Your task to perform on an android device: change the clock style Image 0: 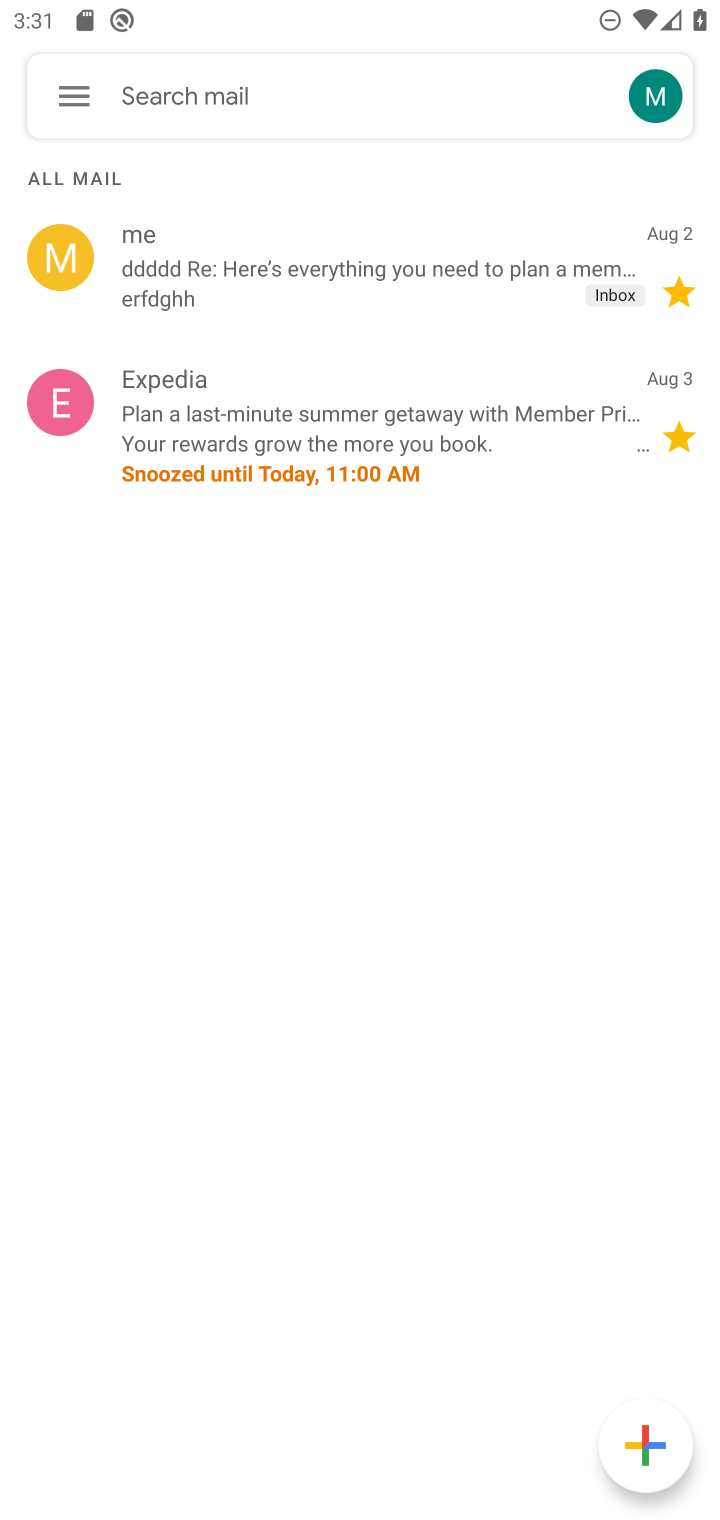
Step 0: press home button
Your task to perform on an android device: change the clock style Image 1: 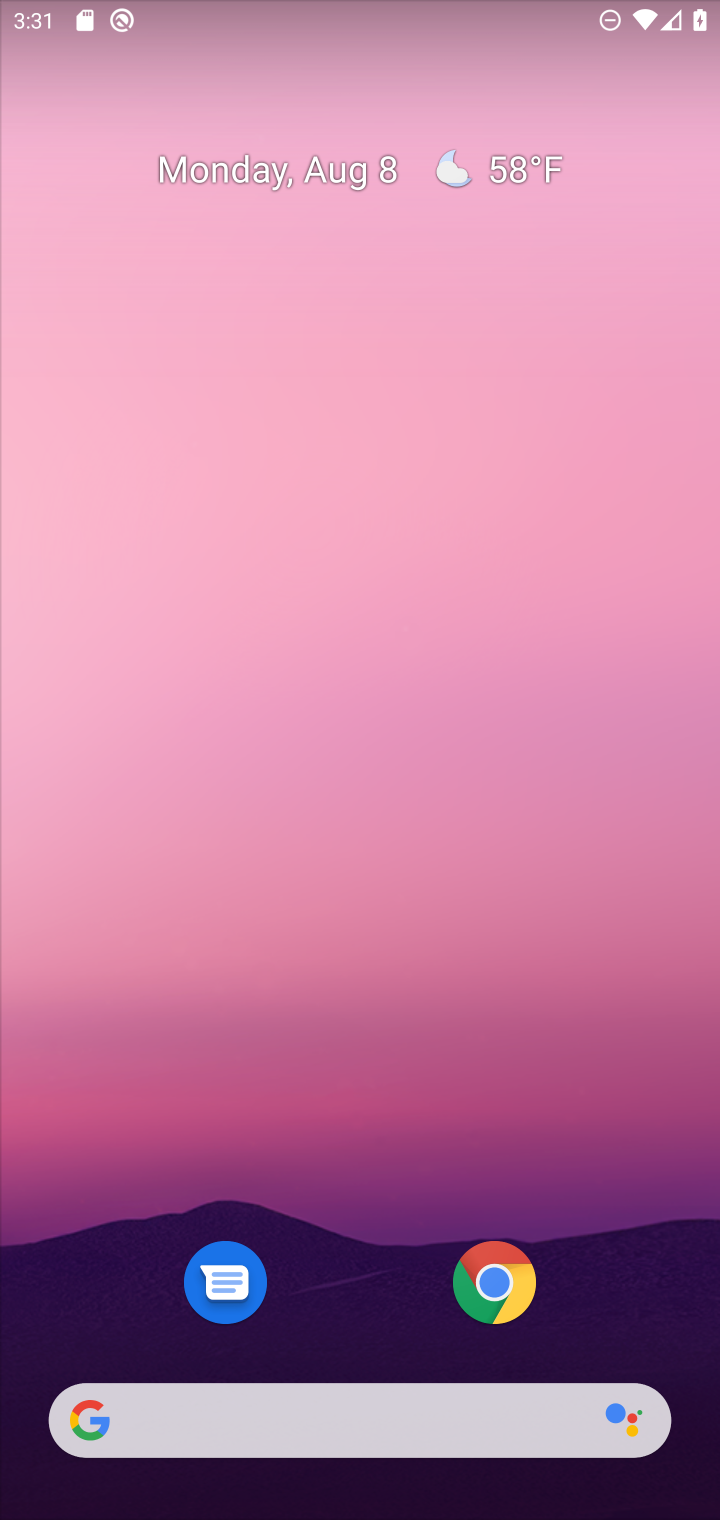
Step 1: drag from (386, 768) to (474, 257)
Your task to perform on an android device: change the clock style Image 2: 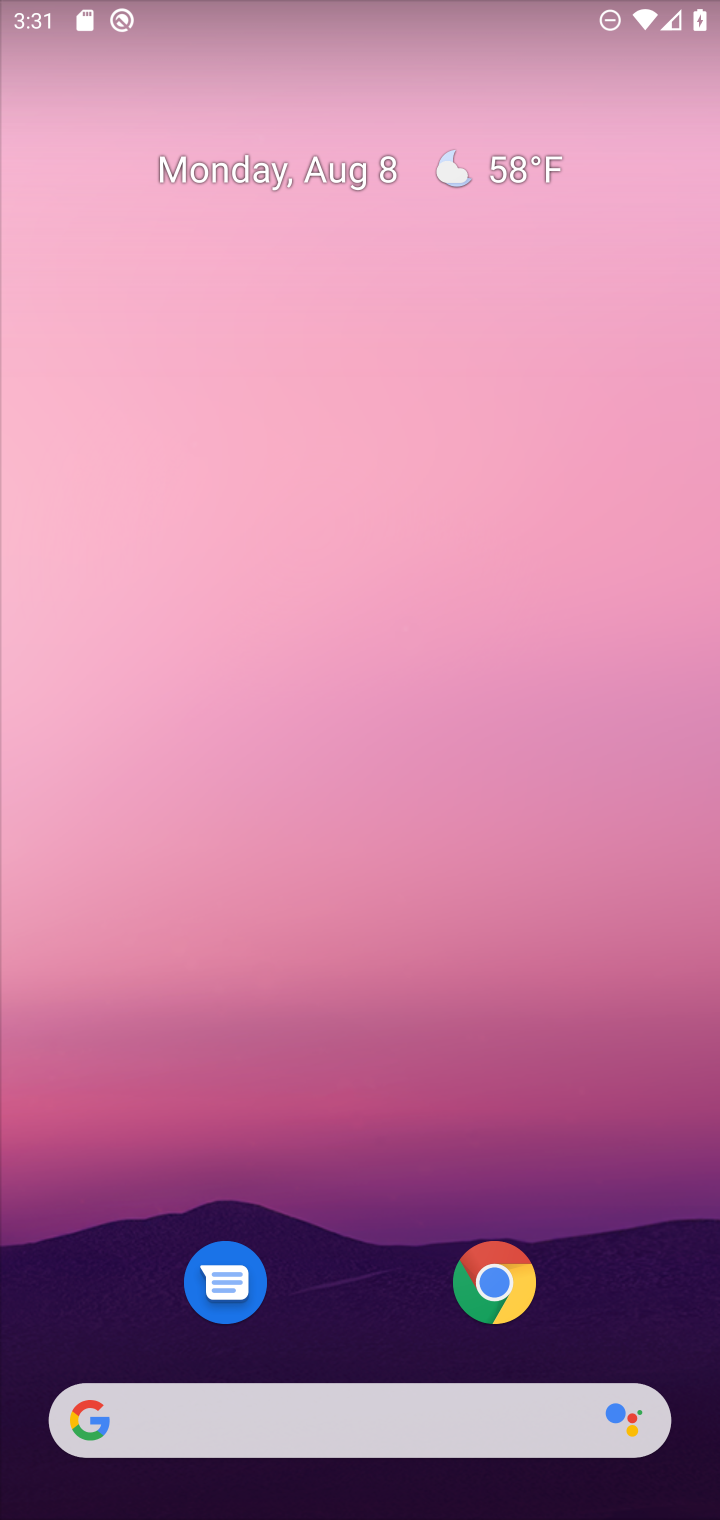
Step 2: drag from (313, 1250) to (419, 237)
Your task to perform on an android device: change the clock style Image 3: 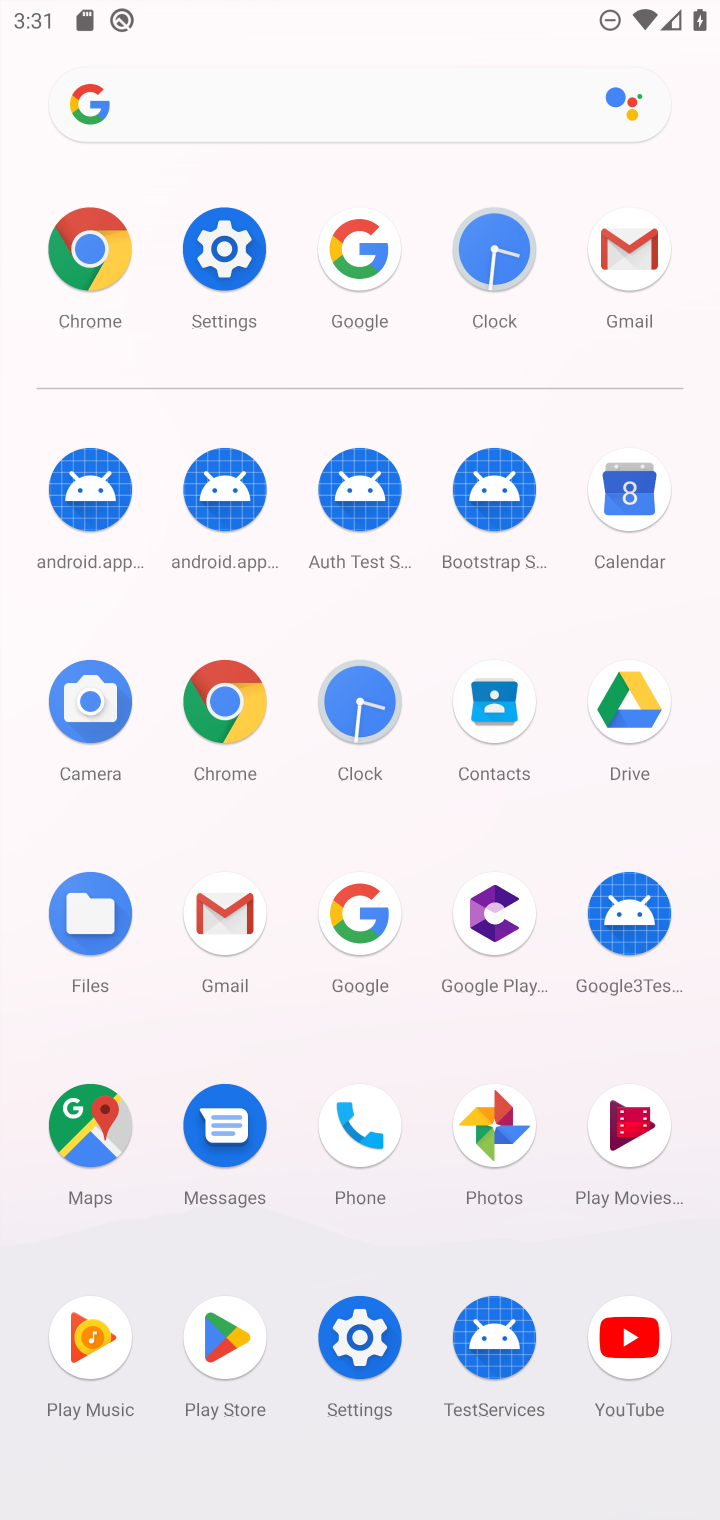
Step 3: click (355, 695)
Your task to perform on an android device: change the clock style Image 4: 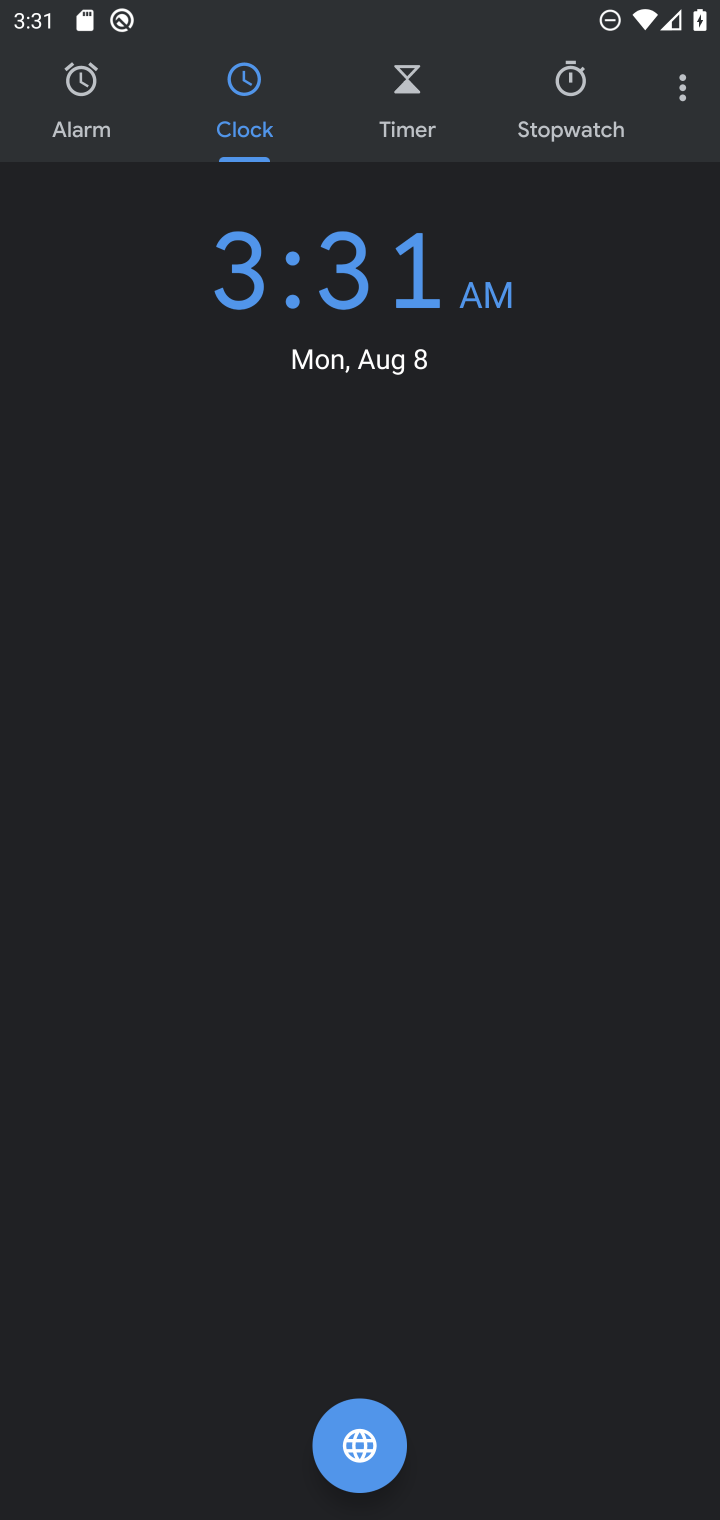
Step 4: click (673, 89)
Your task to perform on an android device: change the clock style Image 5: 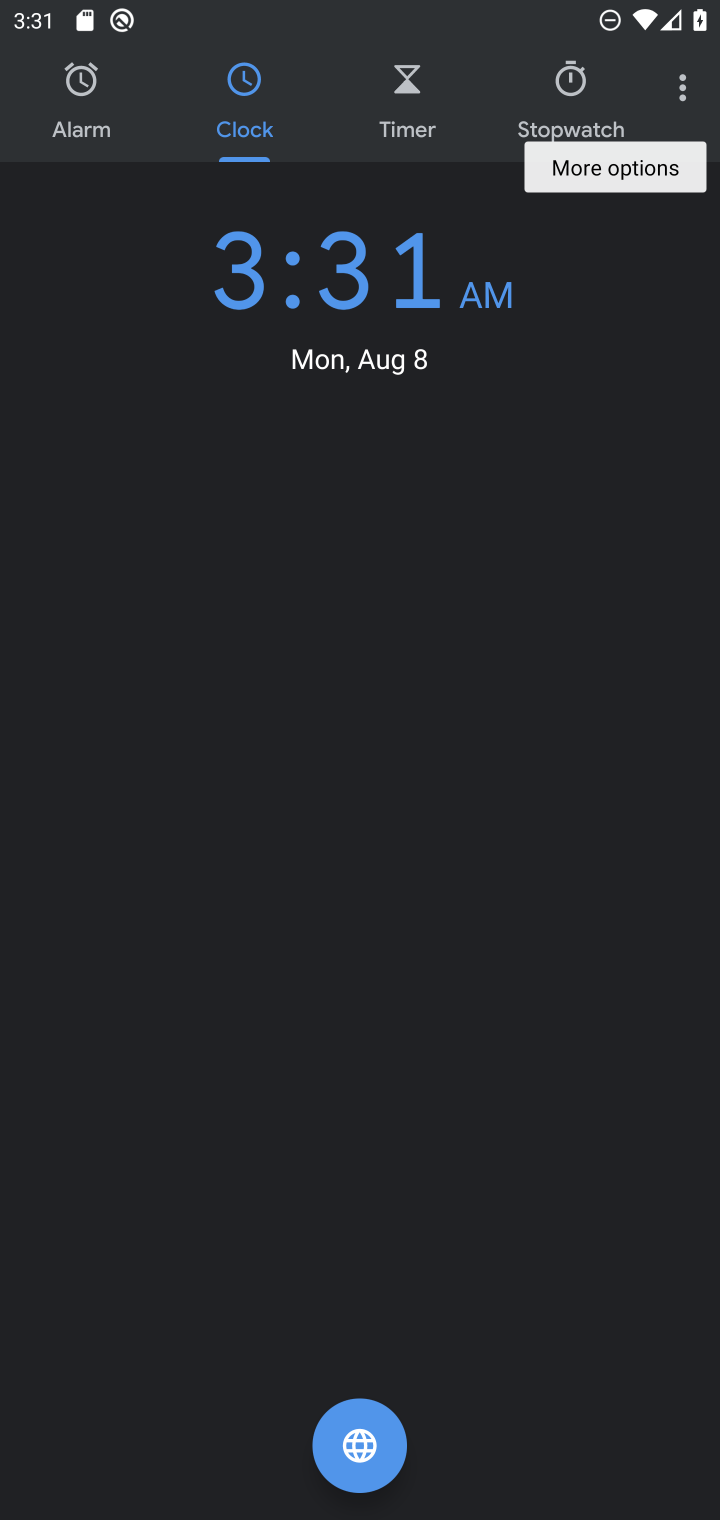
Step 5: click (677, 86)
Your task to perform on an android device: change the clock style Image 6: 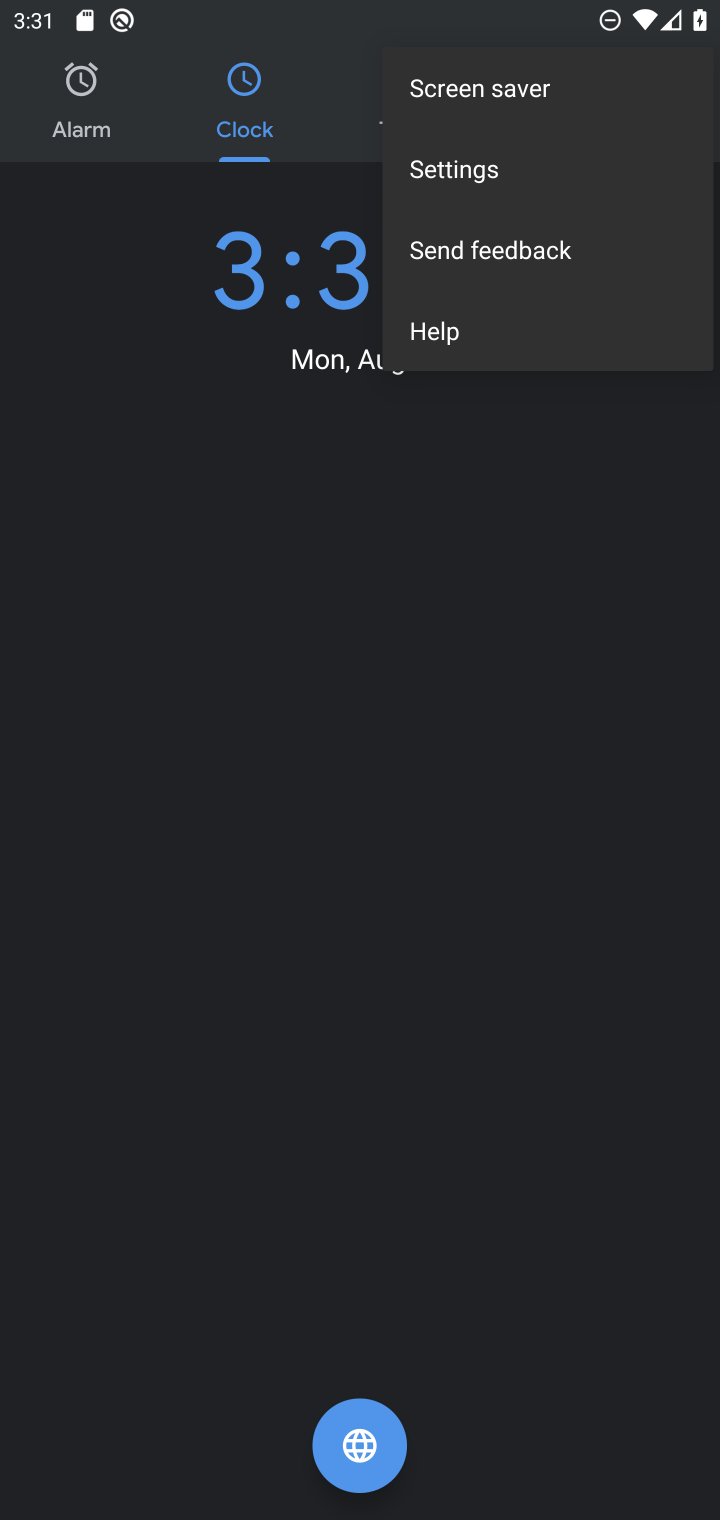
Step 6: click (480, 168)
Your task to perform on an android device: change the clock style Image 7: 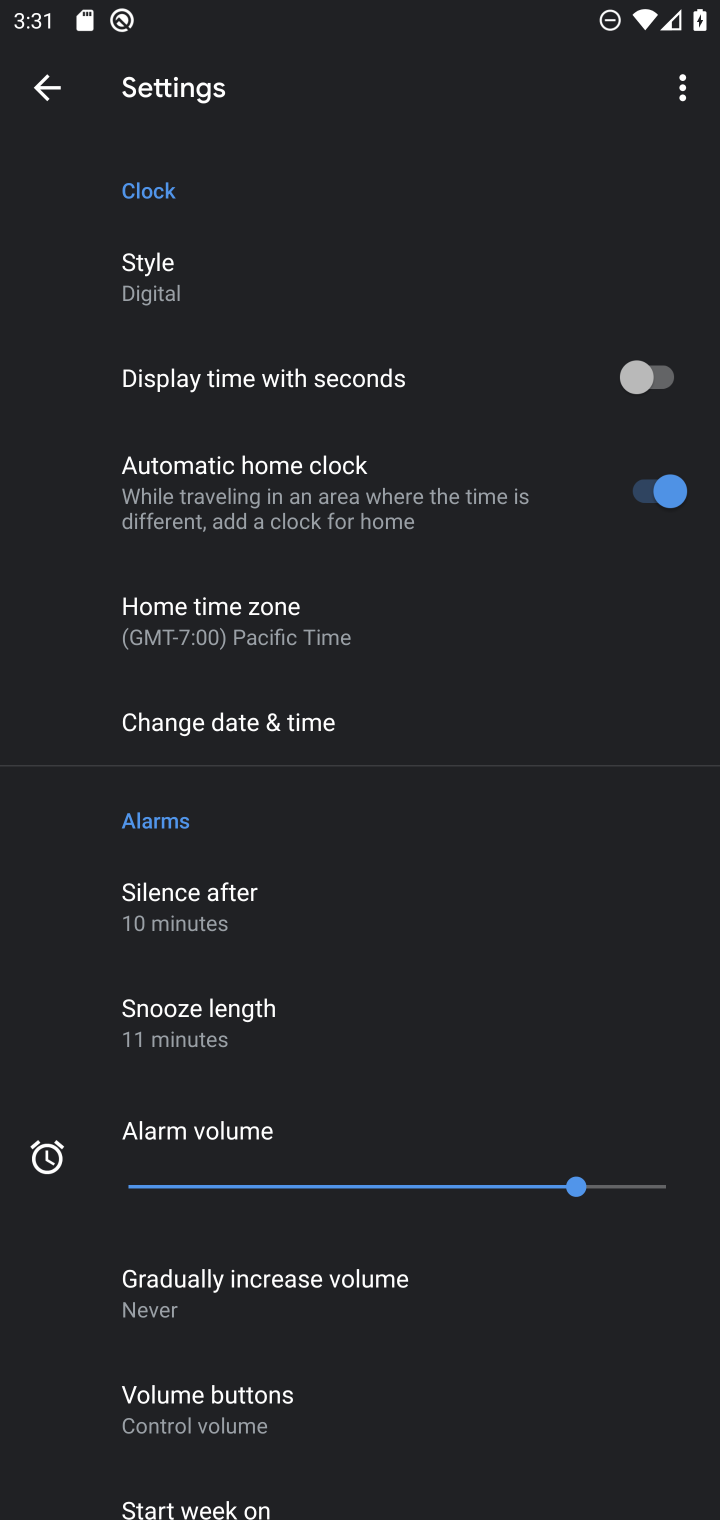
Step 7: click (189, 260)
Your task to perform on an android device: change the clock style Image 8: 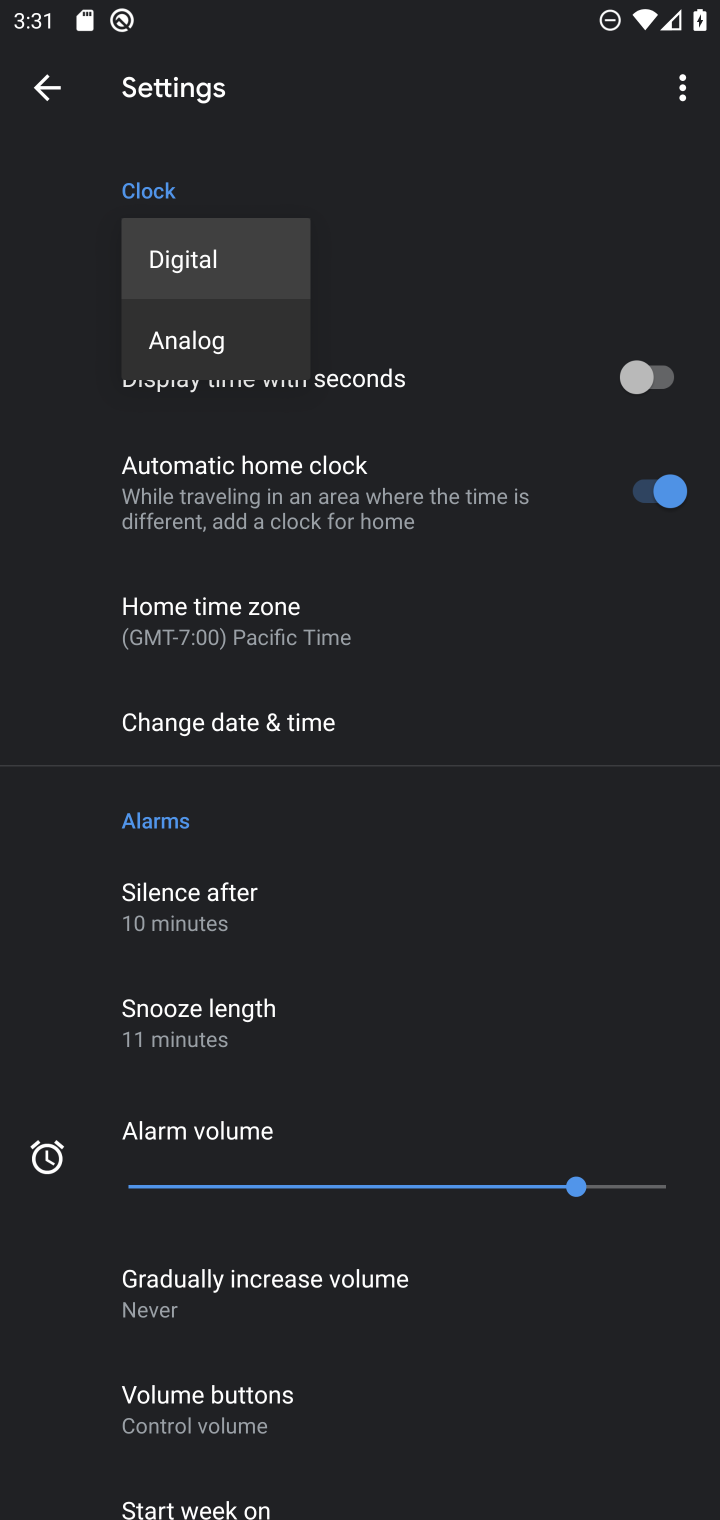
Step 8: click (189, 343)
Your task to perform on an android device: change the clock style Image 9: 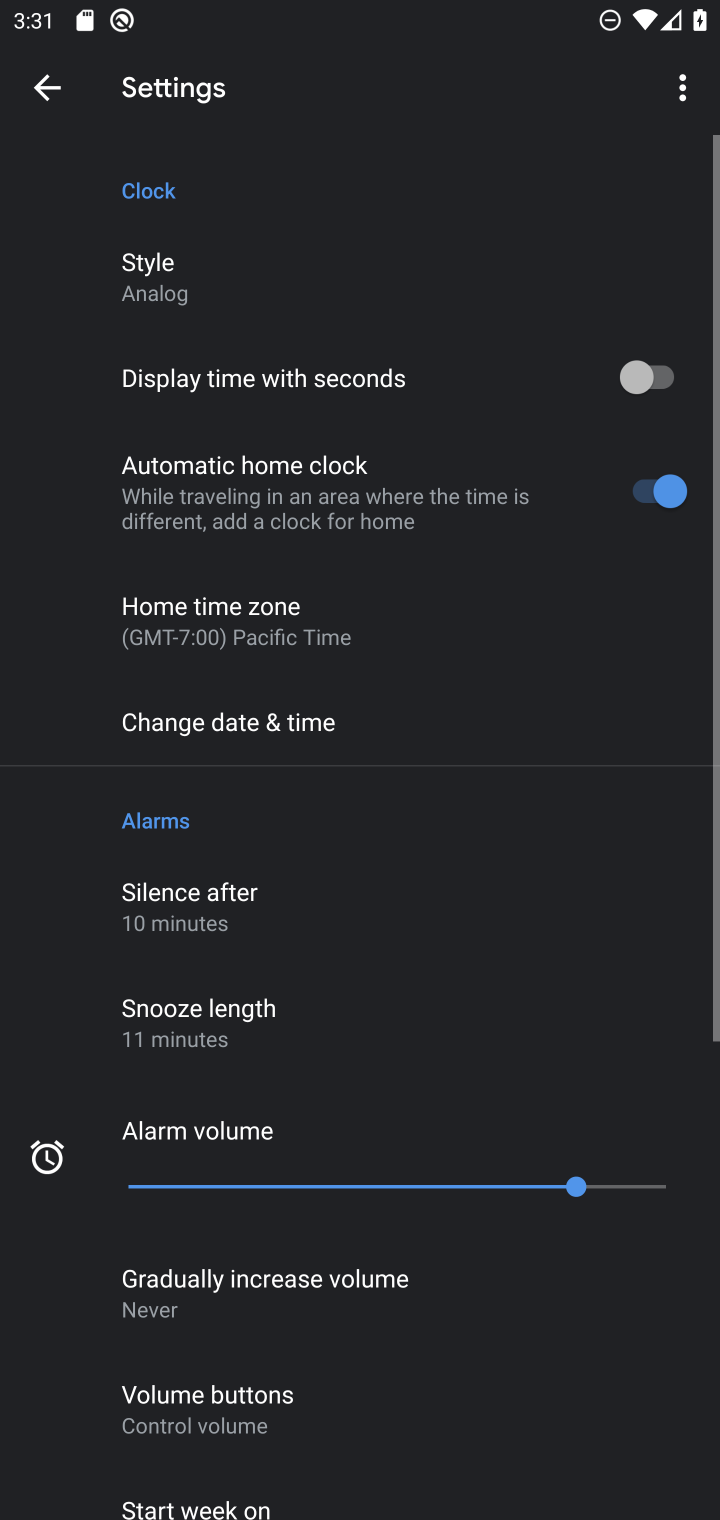
Step 9: task complete